Your task to perform on an android device: Open the phone app and click the voicemail tab. Image 0: 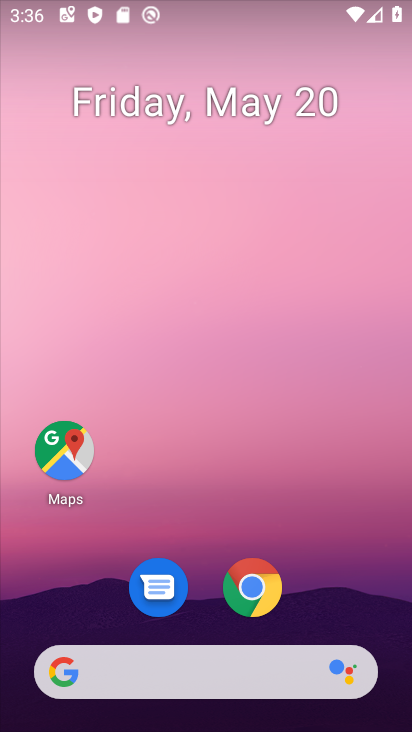
Step 0: drag from (329, 427) to (293, 5)
Your task to perform on an android device: Open the phone app and click the voicemail tab. Image 1: 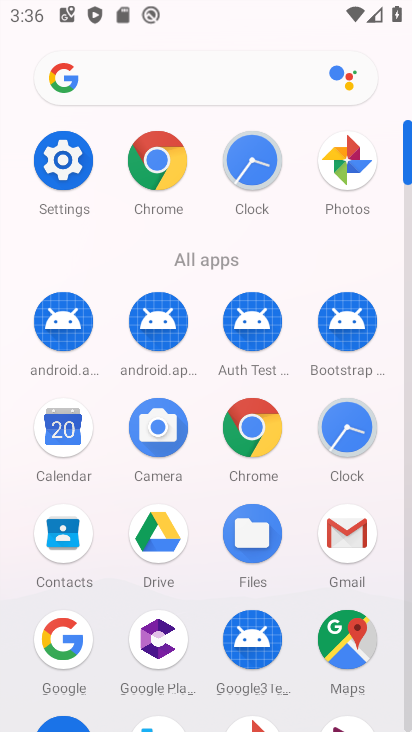
Step 1: drag from (13, 586) to (8, 217)
Your task to perform on an android device: Open the phone app and click the voicemail tab. Image 2: 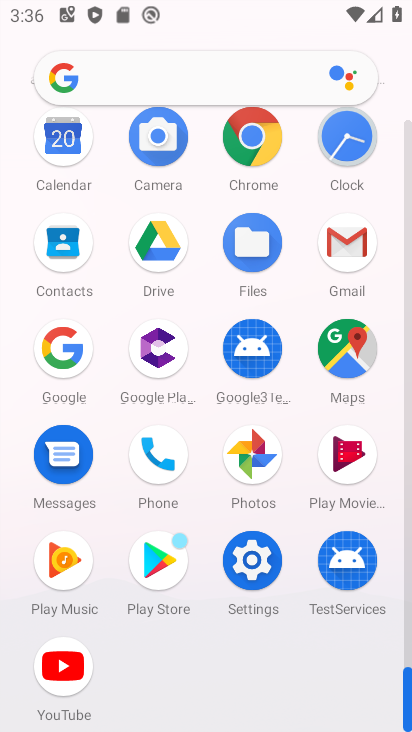
Step 2: click (146, 453)
Your task to perform on an android device: Open the phone app and click the voicemail tab. Image 3: 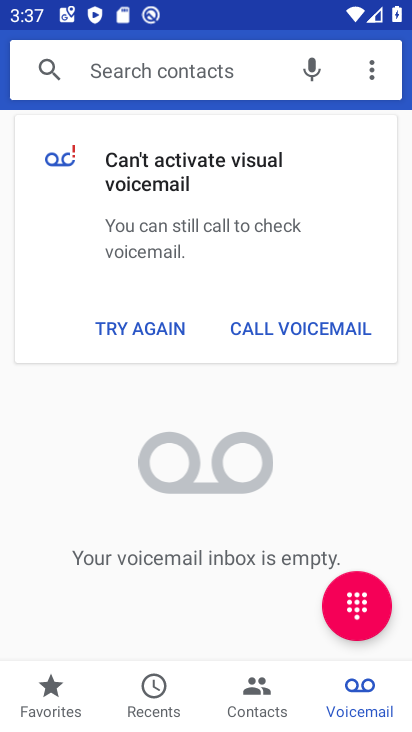
Step 3: task complete